Your task to perform on an android device: open chrome and create a bookmark for the current page Image 0: 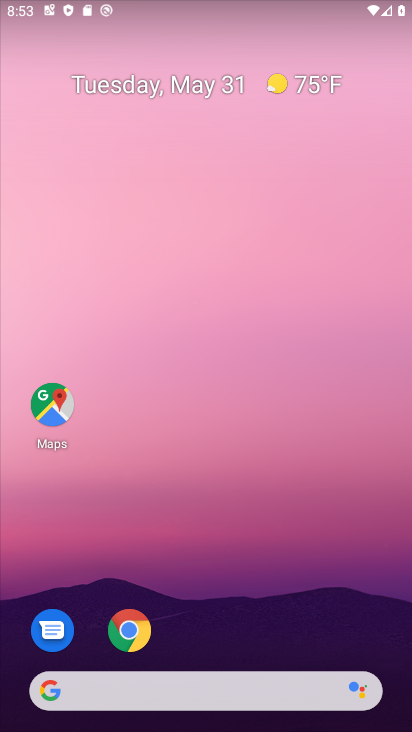
Step 0: drag from (210, 663) to (176, 134)
Your task to perform on an android device: open chrome and create a bookmark for the current page Image 1: 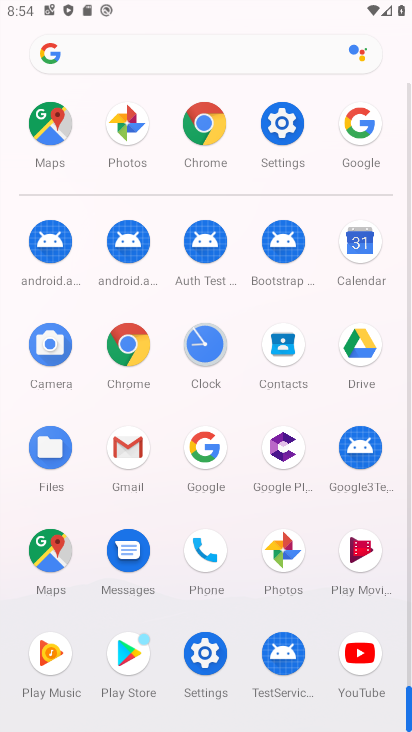
Step 1: click (120, 367)
Your task to perform on an android device: open chrome and create a bookmark for the current page Image 2: 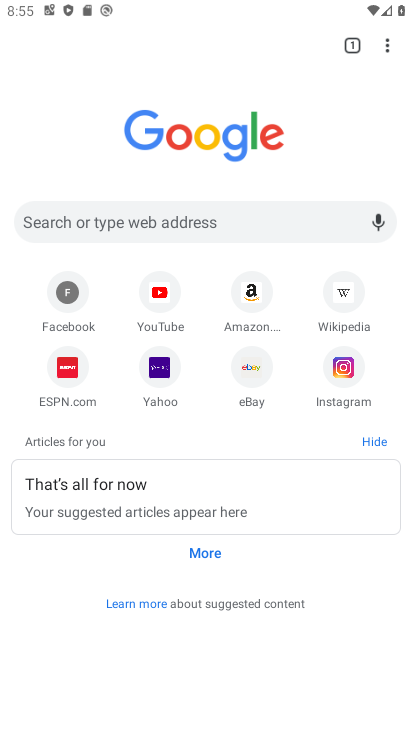
Step 2: click (391, 49)
Your task to perform on an android device: open chrome and create a bookmark for the current page Image 3: 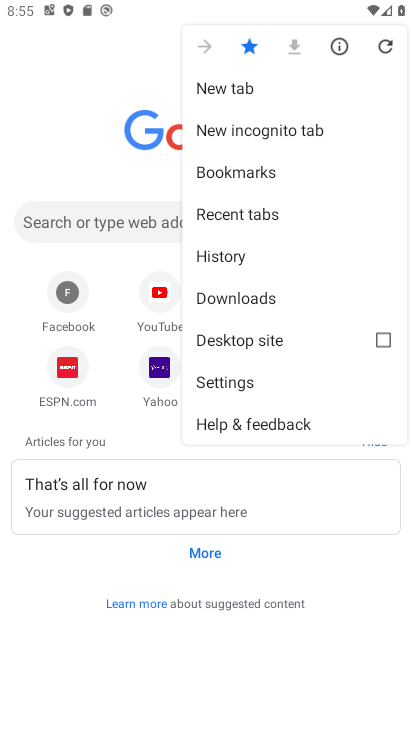
Step 3: task complete